Your task to perform on an android device: Show me recent news Image 0: 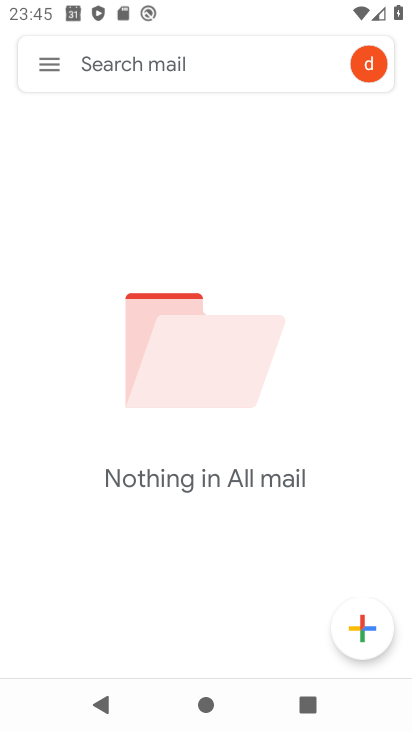
Step 0: press home button
Your task to perform on an android device: Show me recent news Image 1: 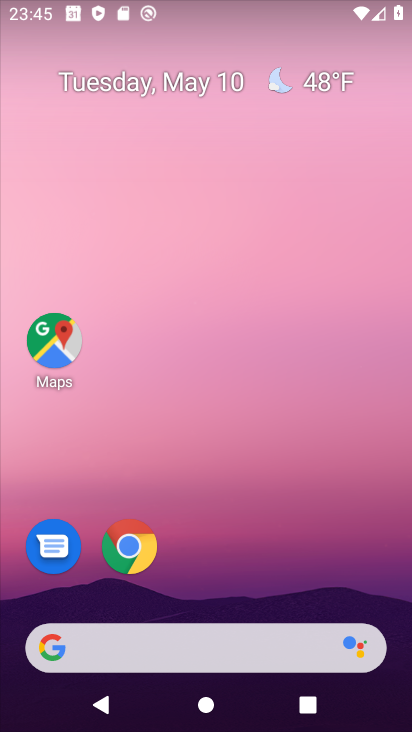
Step 1: drag from (211, 587) to (199, 183)
Your task to perform on an android device: Show me recent news Image 2: 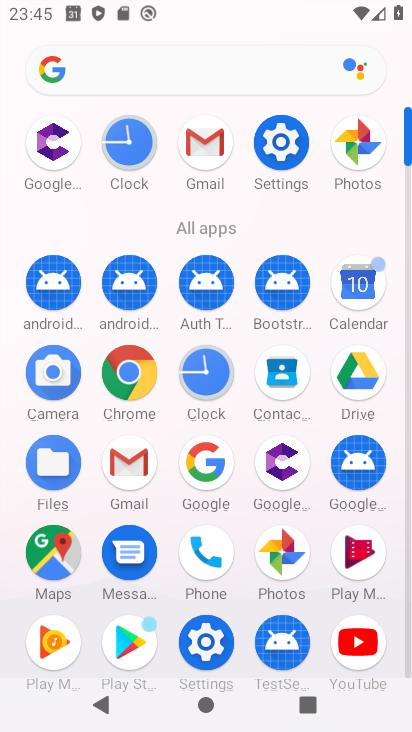
Step 2: click (195, 463)
Your task to perform on an android device: Show me recent news Image 3: 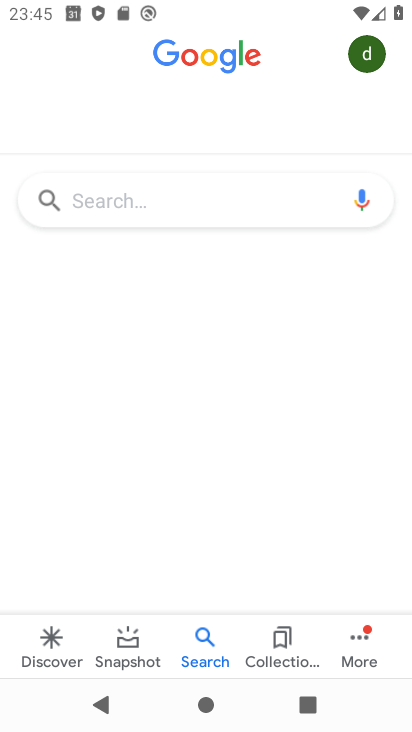
Step 3: click (142, 194)
Your task to perform on an android device: Show me recent news Image 4: 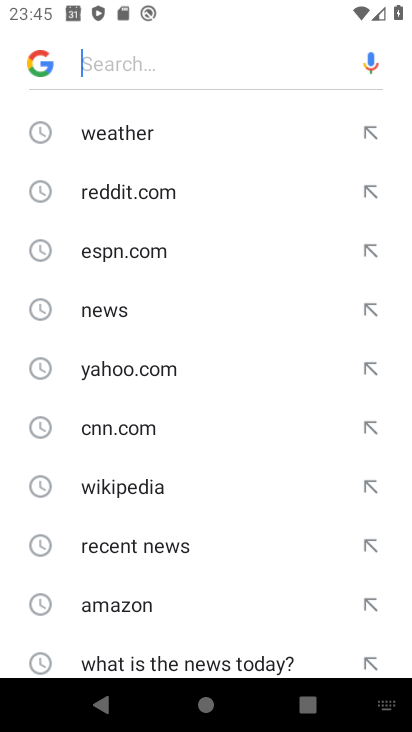
Step 4: click (113, 323)
Your task to perform on an android device: Show me recent news Image 5: 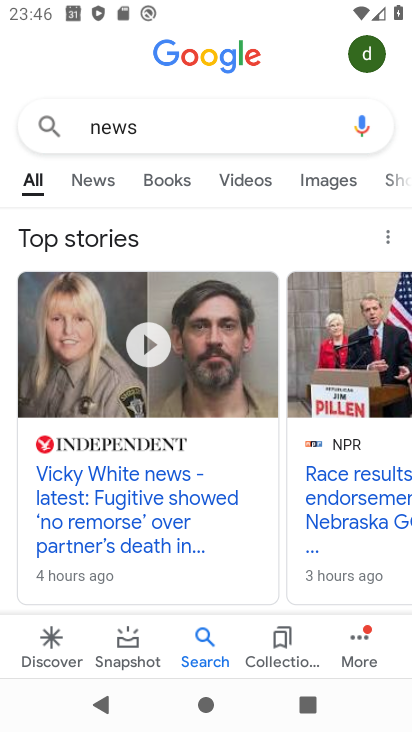
Step 5: click (109, 178)
Your task to perform on an android device: Show me recent news Image 6: 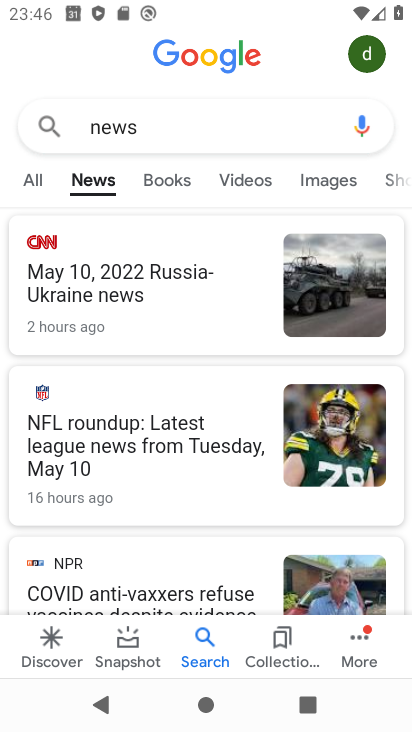
Step 6: task complete